Your task to perform on an android device: Open Amazon Image 0: 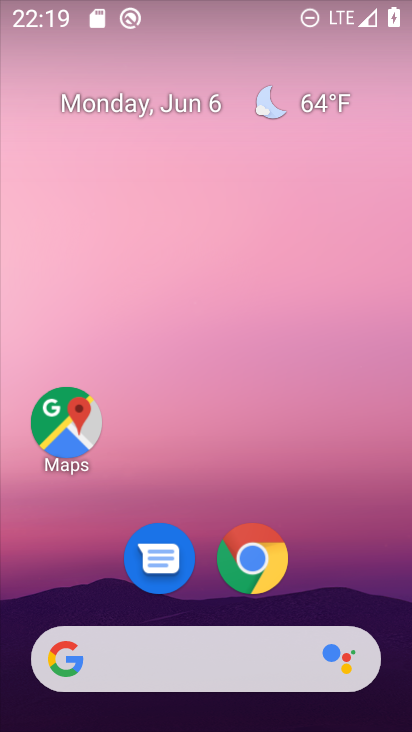
Step 0: click (254, 556)
Your task to perform on an android device: Open Amazon Image 1: 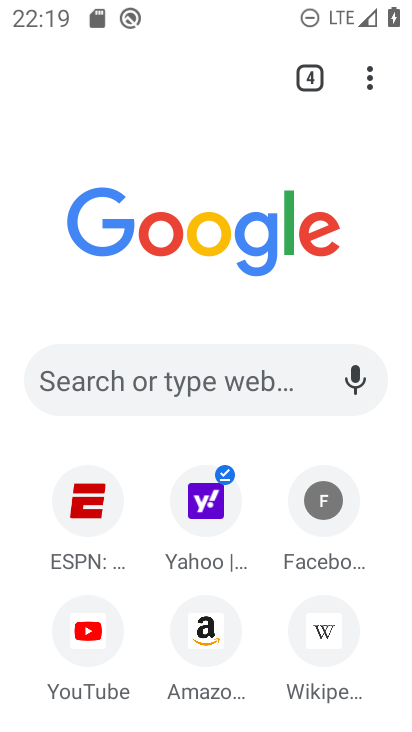
Step 1: click (203, 634)
Your task to perform on an android device: Open Amazon Image 2: 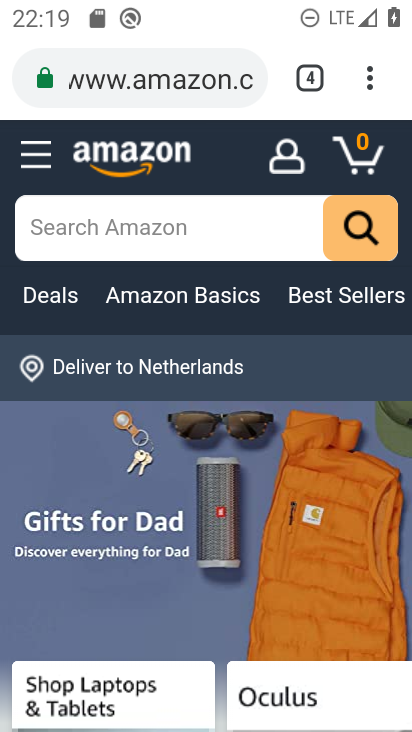
Step 2: task complete